Your task to perform on an android device: check data usage Image 0: 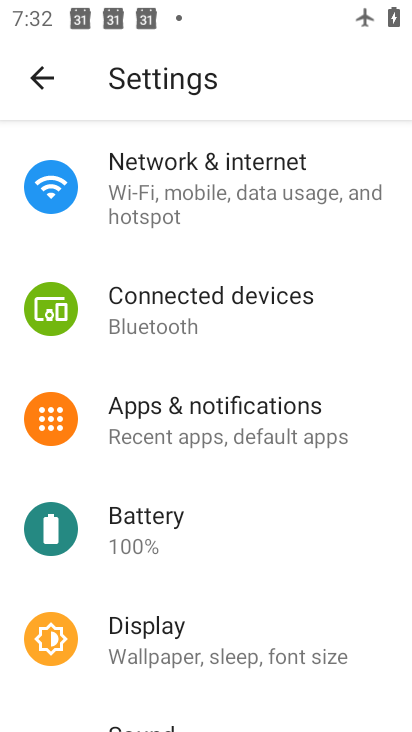
Step 0: press home button
Your task to perform on an android device: check data usage Image 1: 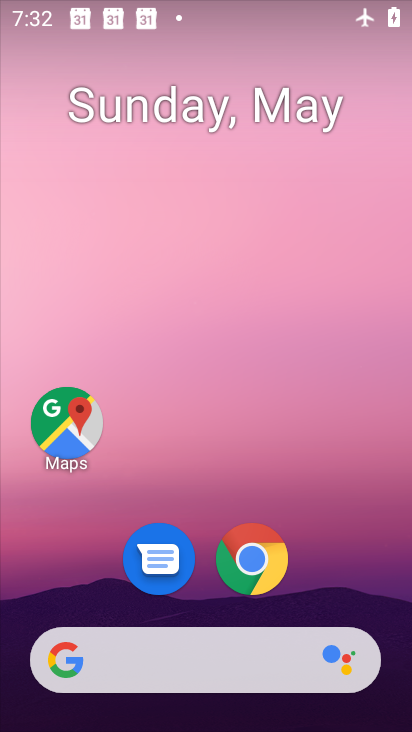
Step 1: drag from (218, 656) to (291, 181)
Your task to perform on an android device: check data usage Image 2: 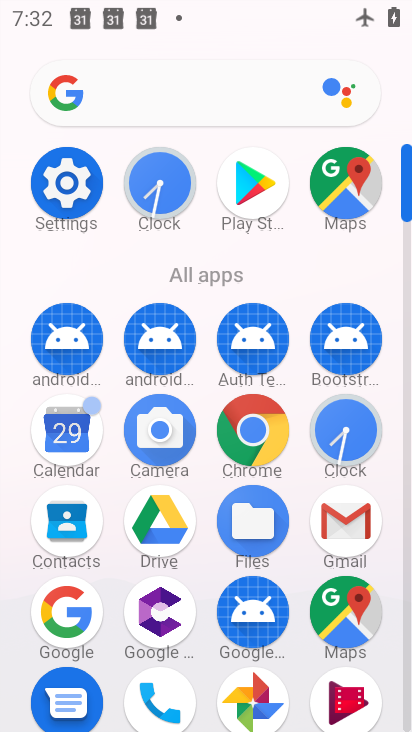
Step 2: click (77, 190)
Your task to perform on an android device: check data usage Image 3: 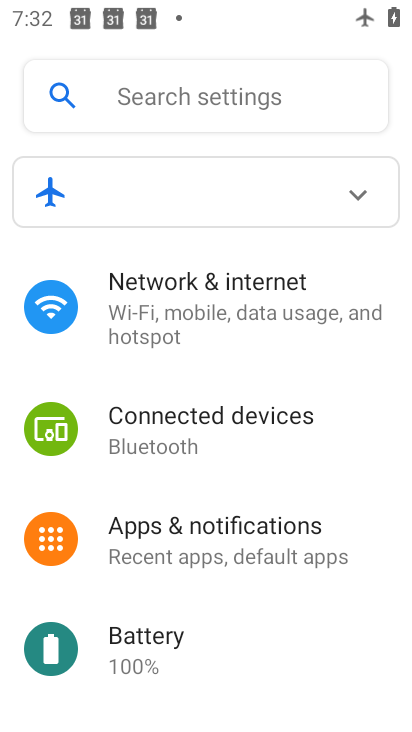
Step 3: click (173, 307)
Your task to perform on an android device: check data usage Image 4: 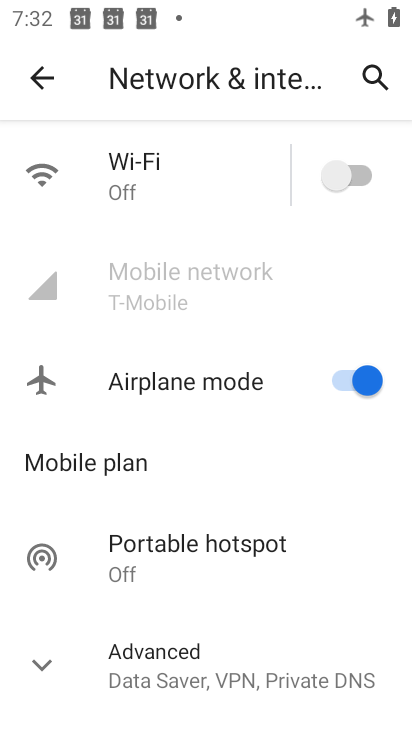
Step 4: click (133, 188)
Your task to perform on an android device: check data usage Image 5: 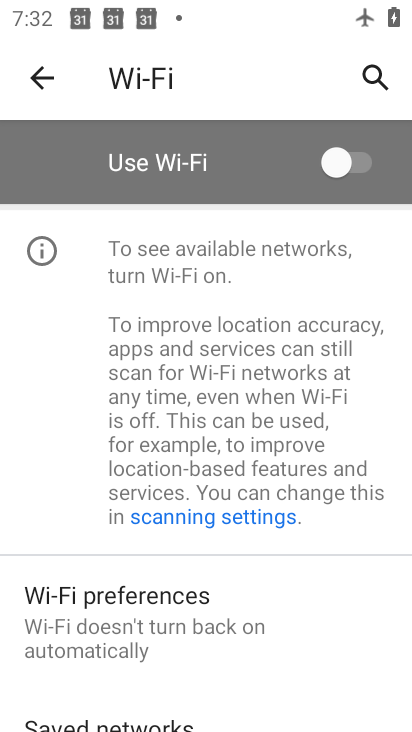
Step 5: drag from (200, 575) to (290, 49)
Your task to perform on an android device: check data usage Image 6: 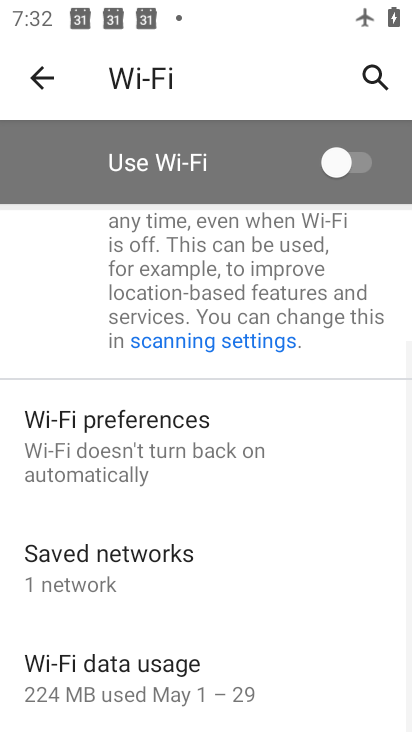
Step 6: click (124, 656)
Your task to perform on an android device: check data usage Image 7: 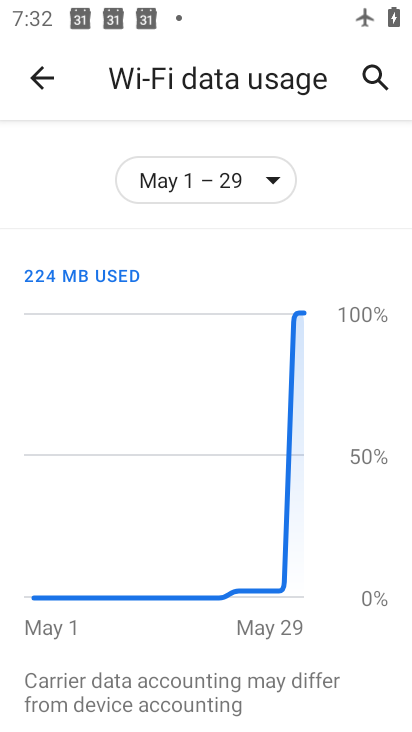
Step 7: task complete